Your task to perform on an android device: toggle priority inbox in the gmail app Image 0: 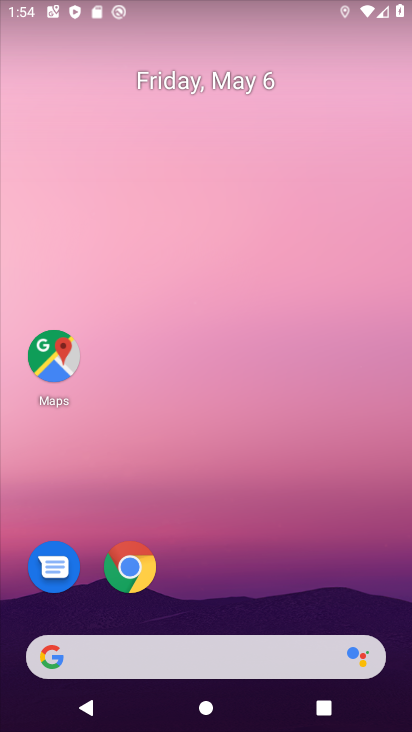
Step 0: drag from (377, 618) to (325, 120)
Your task to perform on an android device: toggle priority inbox in the gmail app Image 1: 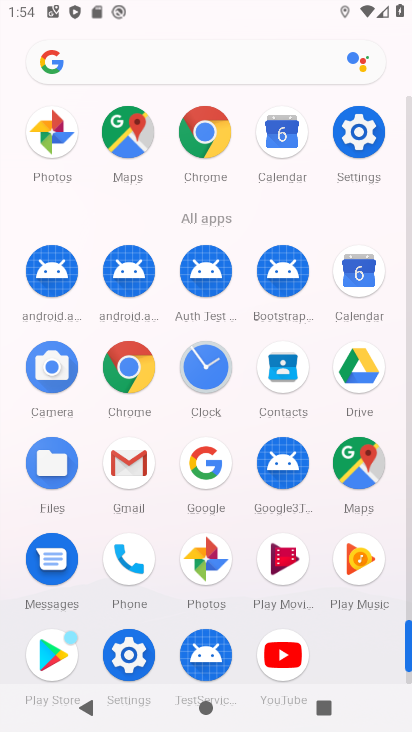
Step 1: click (129, 458)
Your task to perform on an android device: toggle priority inbox in the gmail app Image 2: 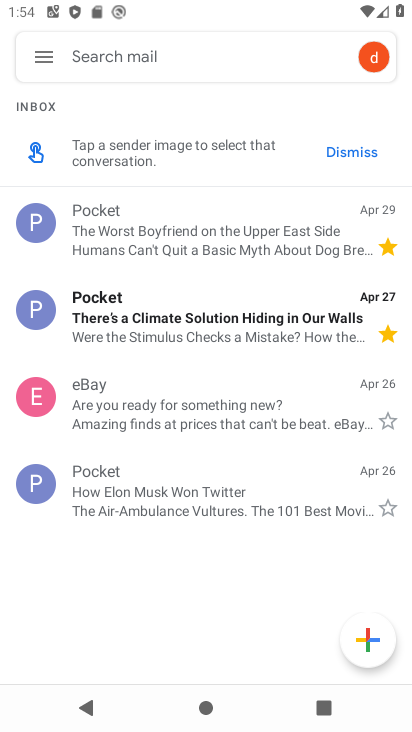
Step 2: click (36, 57)
Your task to perform on an android device: toggle priority inbox in the gmail app Image 3: 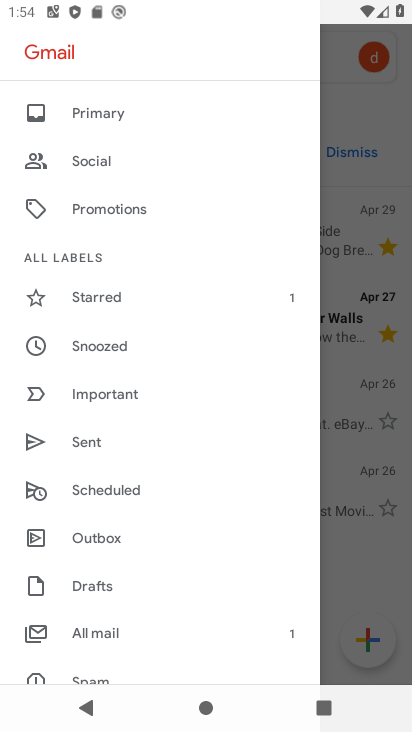
Step 3: drag from (166, 633) to (214, 249)
Your task to perform on an android device: toggle priority inbox in the gmail app Image 4: 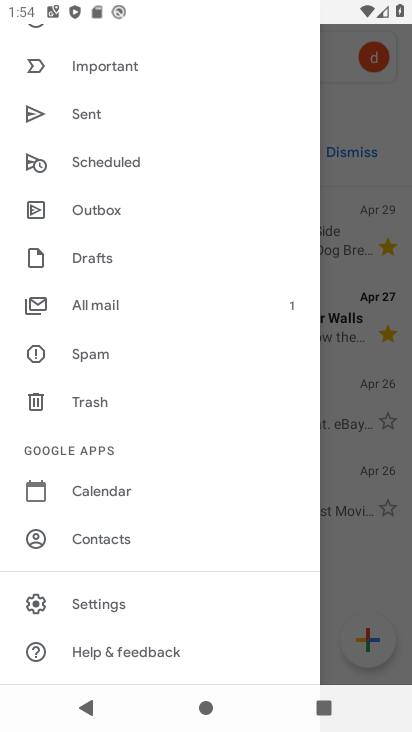
Step 4: click (77, 608)
Your task to perform on an android device: toggle priority inbox in the gmail app Image 5: 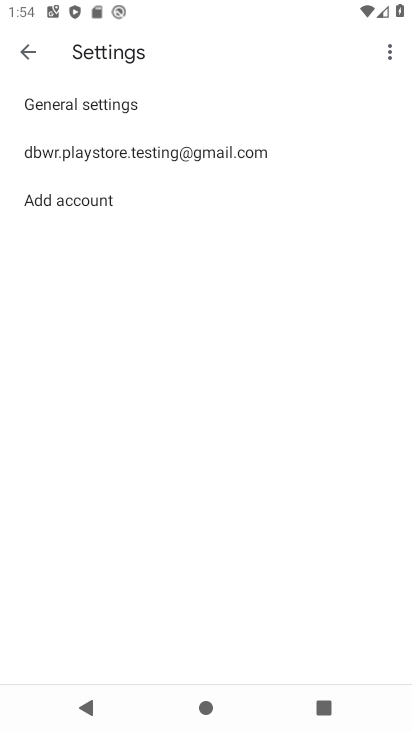
Step 5: click (119, 152)
Your task to perform on an android device: toggle priority inbox in the gmail app Image 6: 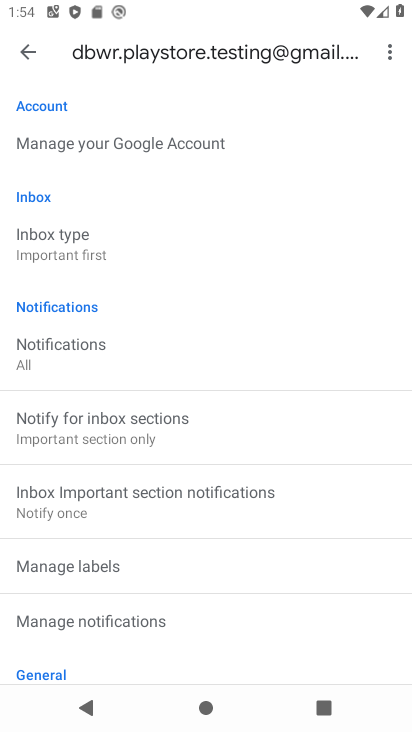
Step 6: click (70, 243)
Your task to perform on an android device: toggle priority inbox in the gmail app Image 7: 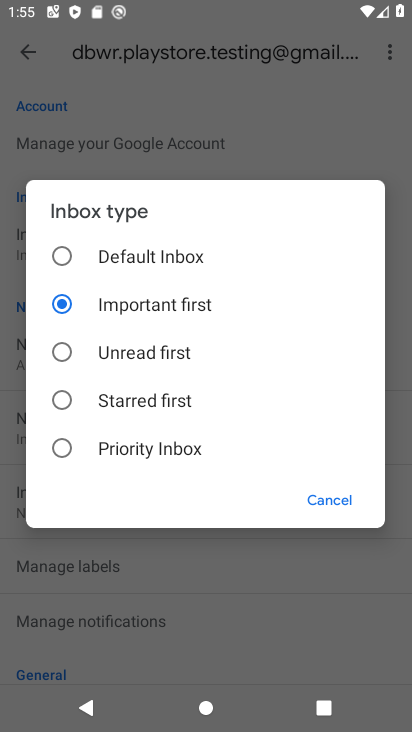
Step 7: click (62, 453)
Your task to perform on an android device: toggle priority inbox in the gmail app Image 8: 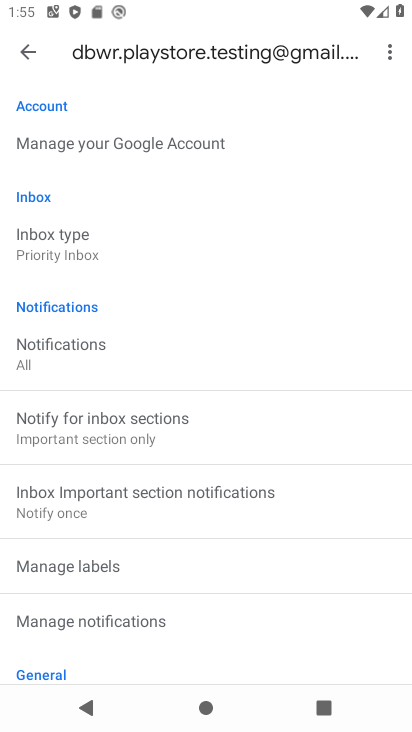
Step 8: task complete